Your task to perform on an android device: turn off wifi Image 0: 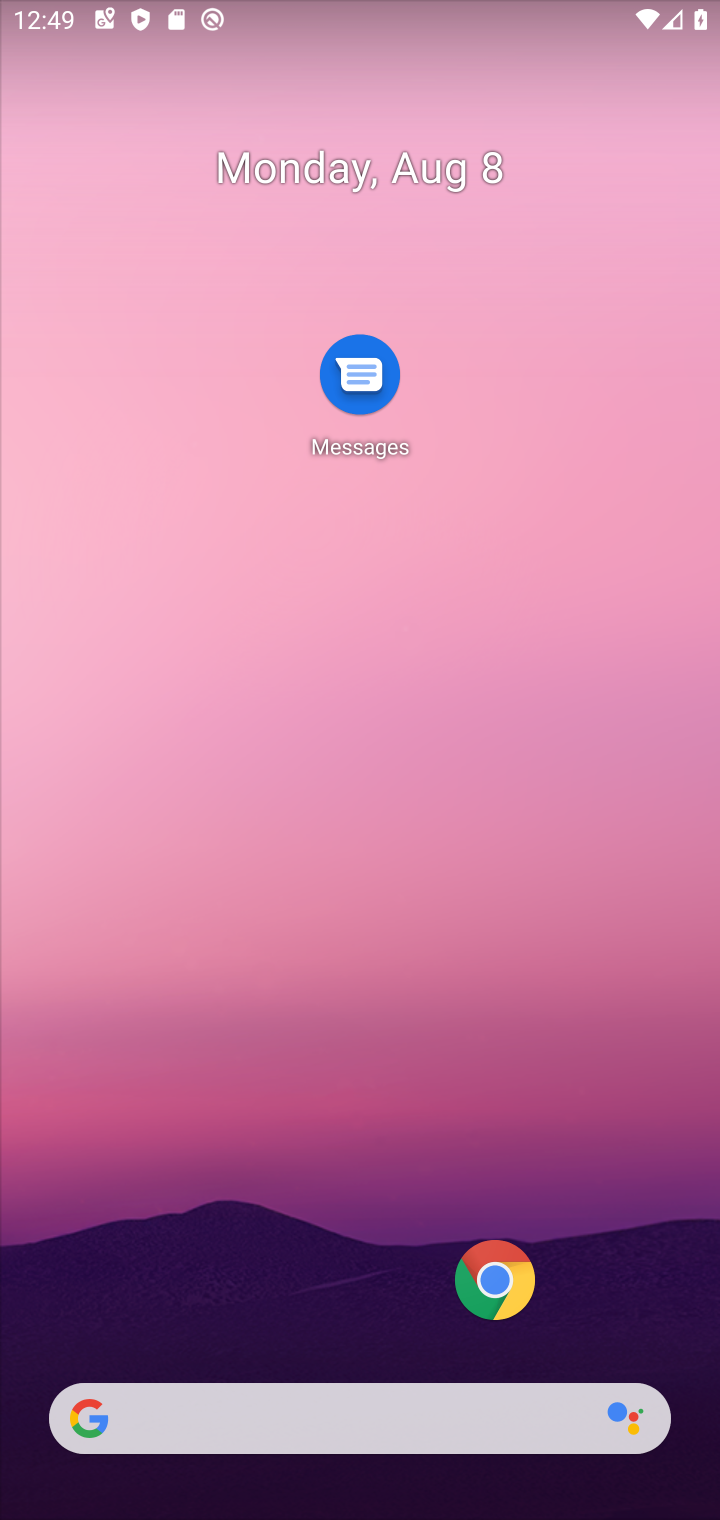
Step 0: drag from (236, 178) to (375, 1246)
Your task to perform on an android device: turn off wifi Image 1: 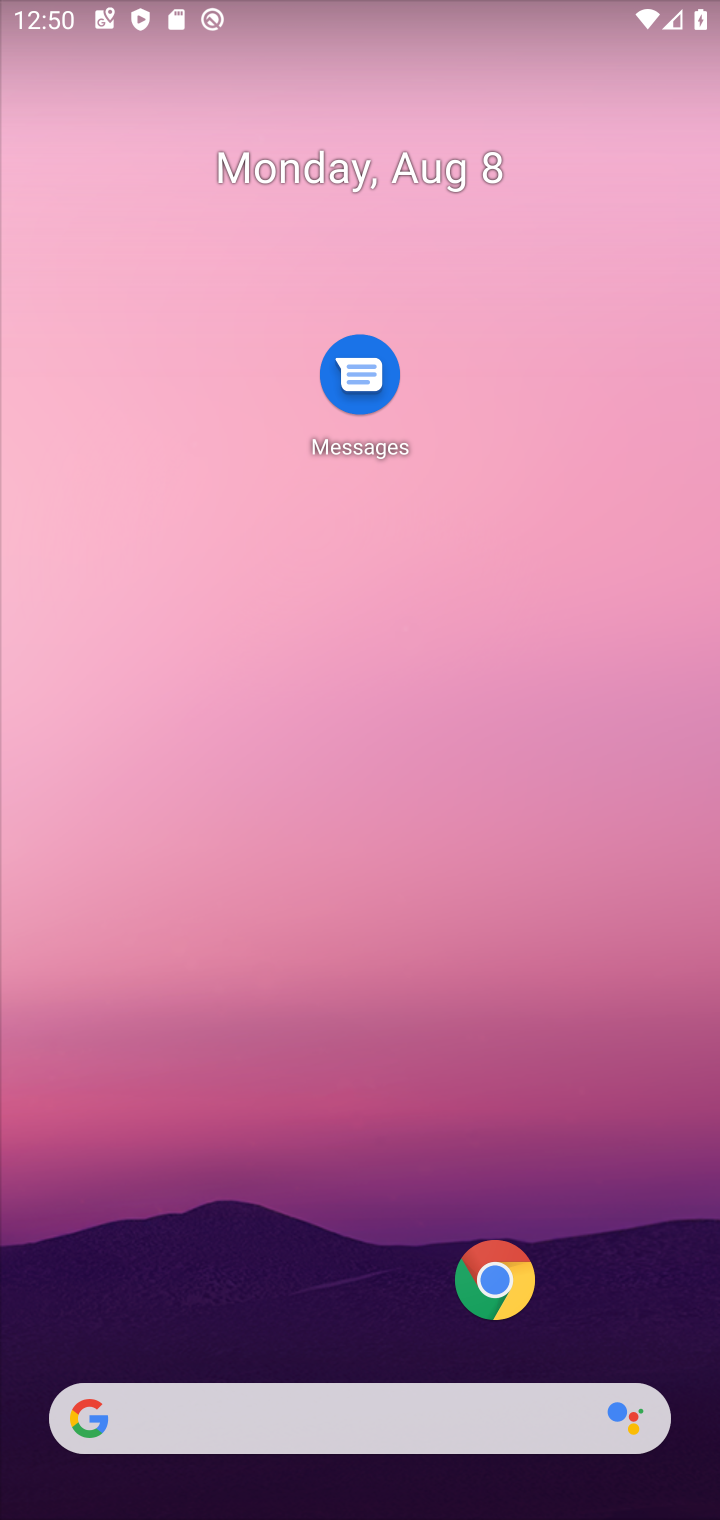
Step 1: drag from (384, 5) to (332, 687)
Your task to perform on an android device: turn off wifi Image 2: 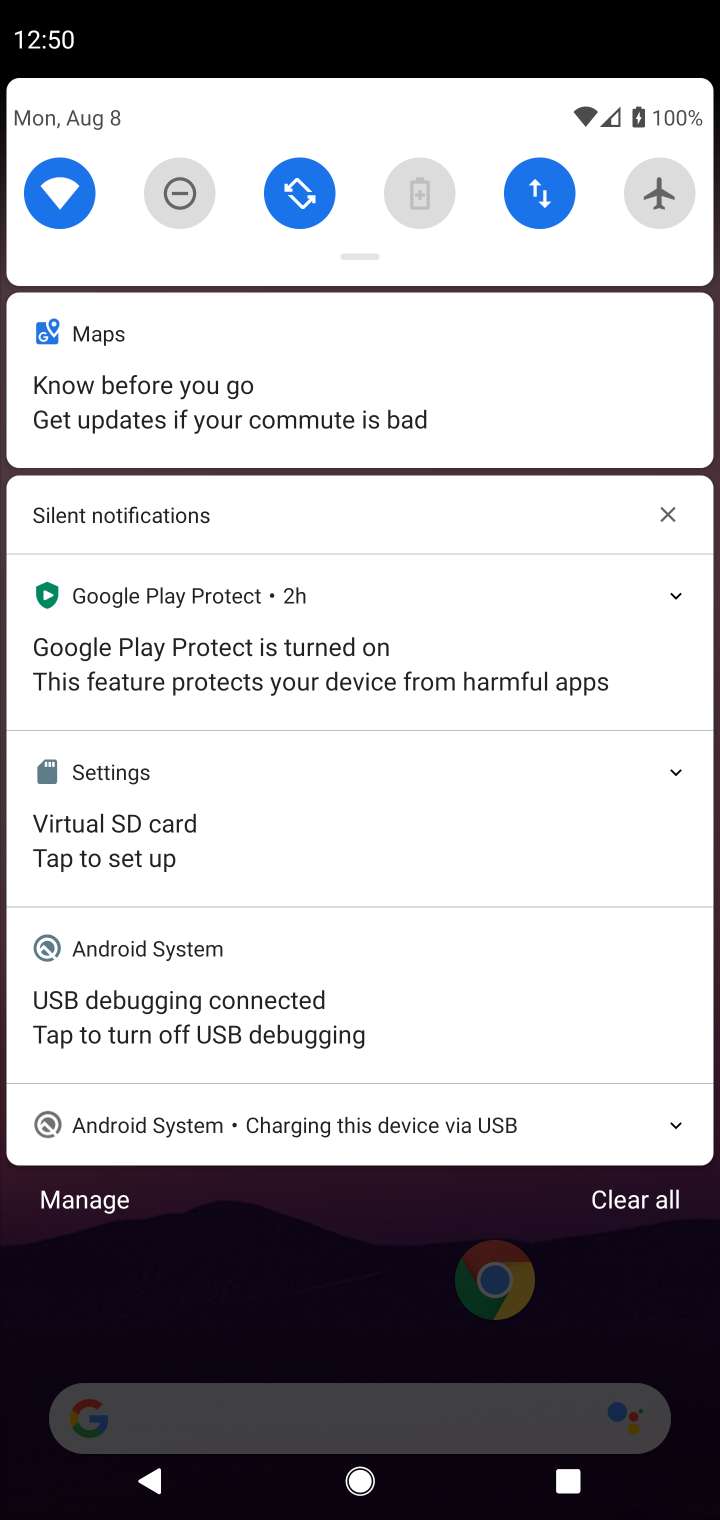
Step 2: click (46, 179)
Your task to perform on an android device: turn off wifi Image 3: 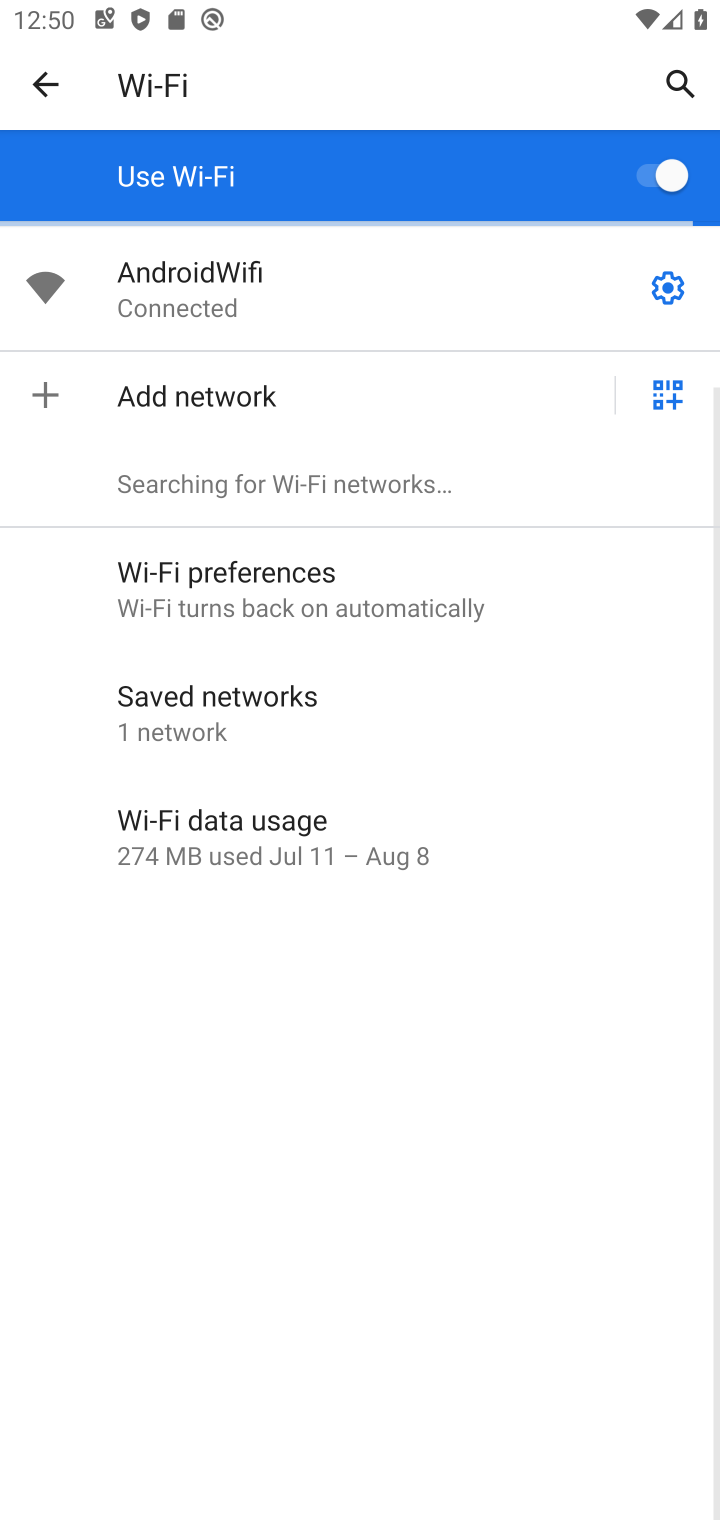
Step 3: click (678, 164)
Your task to perform on an android device: turn off wifi Image 4: 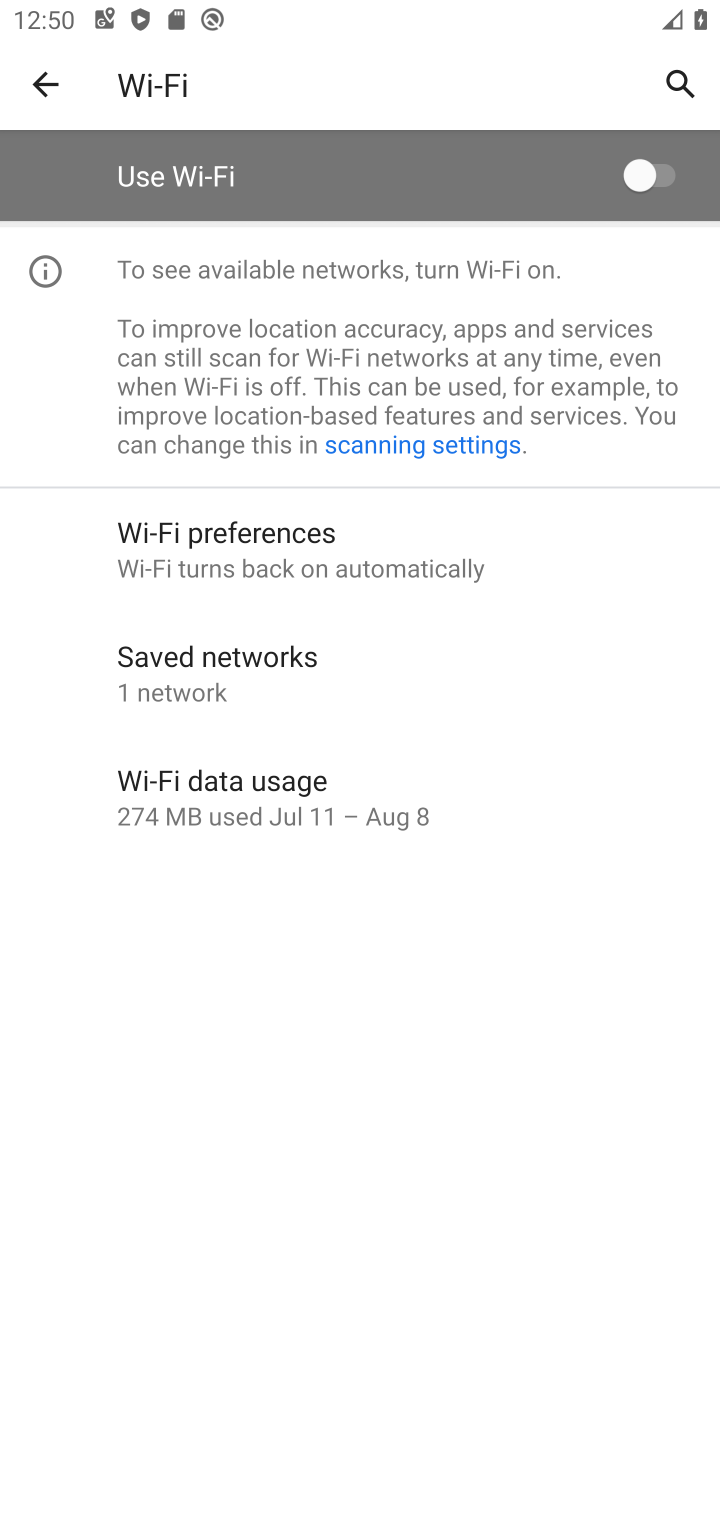
Step 4: task complete